Your task to perform on an android device: turn off sleep mode Image 0: 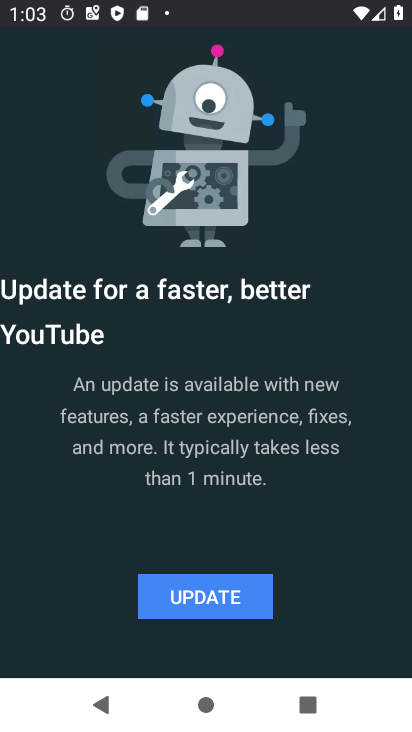
Step 0: press home button
Your task to perform on an android device: turn off sleep mode Image 1: 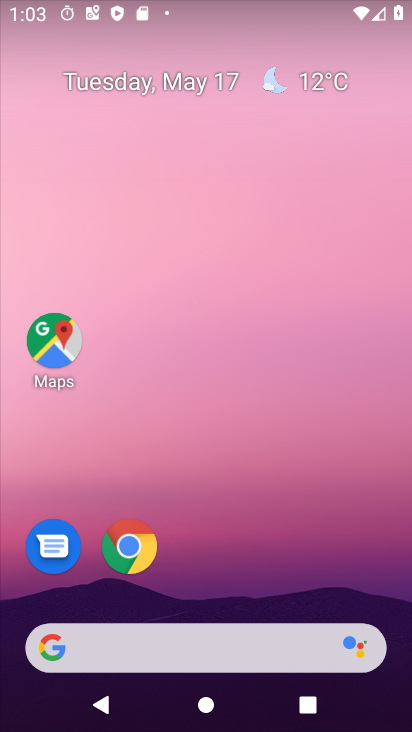
Step 1: drag from (178, 601) to (331, 188)
Your task to perform on an android device: turn off sleep mode Image 2: 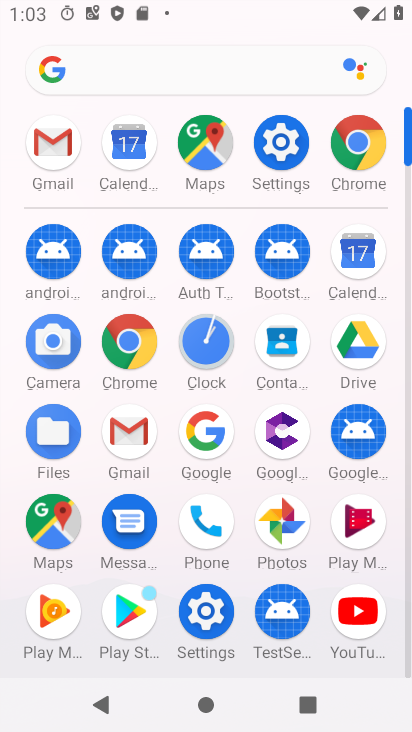
Step 2: click (298, 145)
Your task to perform on an android device: turn off sleep mode Image 3: 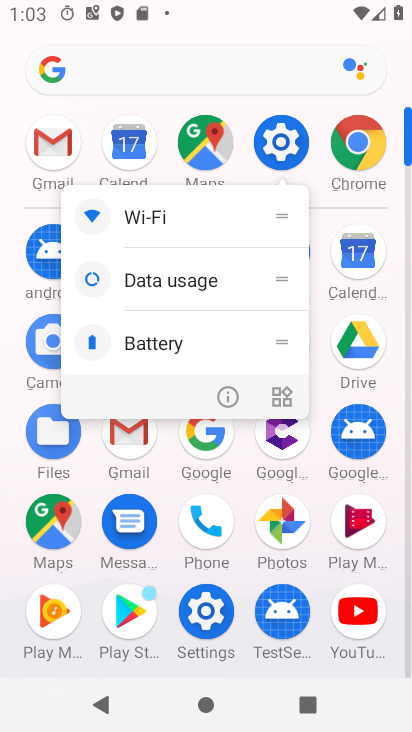
Step 3: click (287, 146)
Your task to perform on an android device: turn off sleep mode Image 4: 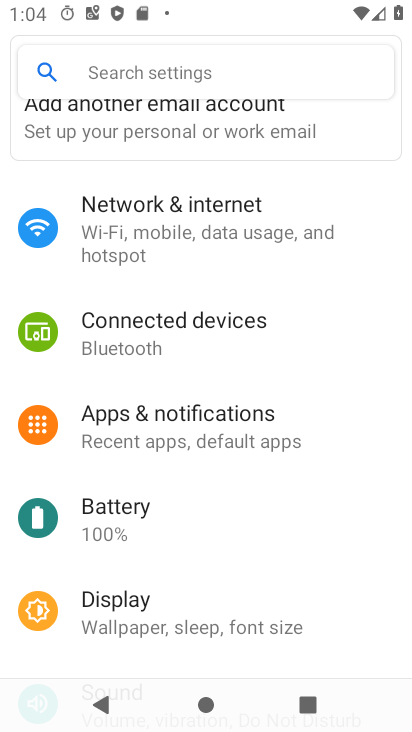
Step 4: click (157, 611)
Your task to perform on an android device: turn off sleep mode Image 5: 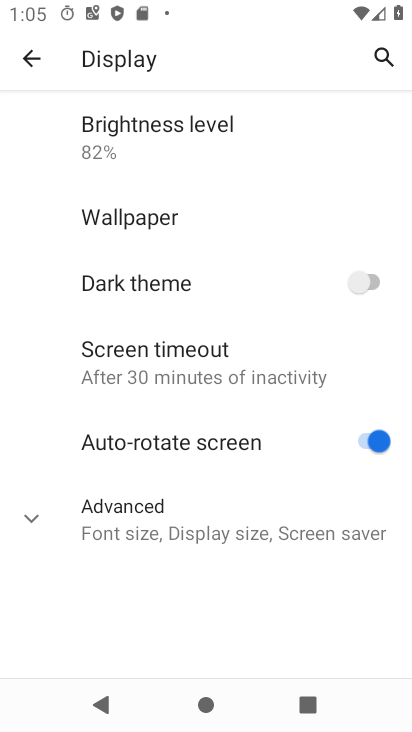
Step 5: task complete